Your task to perform on an android device: Go to battery settings Image 0: 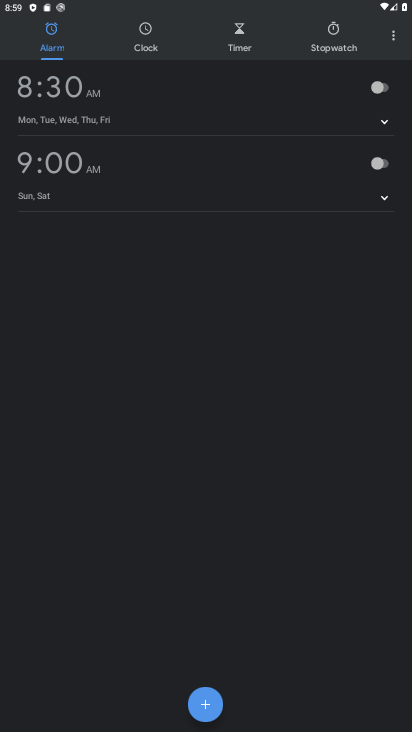
Step 0: press home button
Your task to perform on an android device: Go to battery settings Image 1: 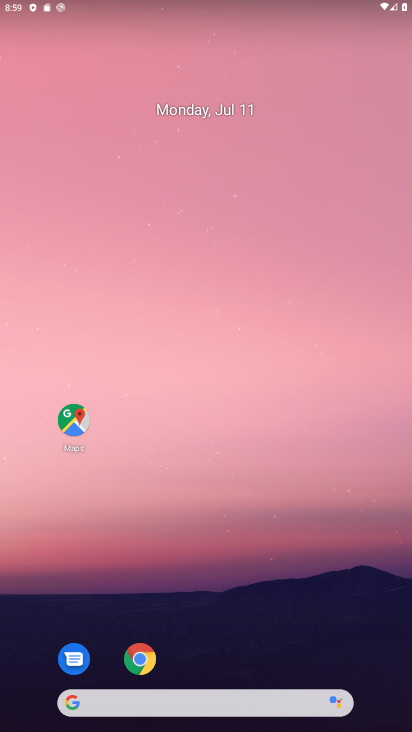
Step 1: drag from (375, 640) to (355, 95)
Your task to perform on an android device: Go to battery settings Image 2: 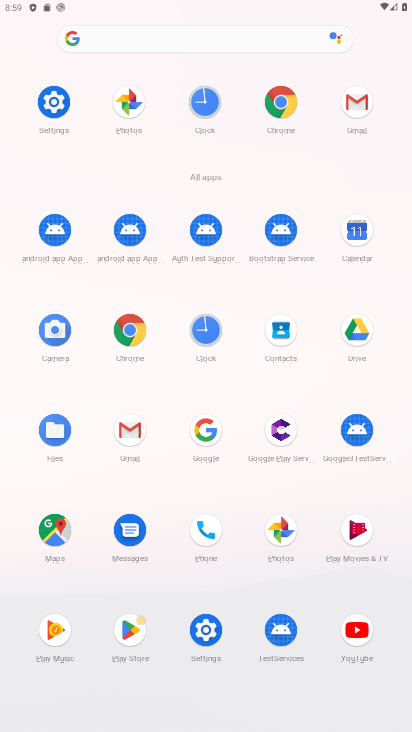
Step 2: click (207, 617)
Your task to perform on an android device: Go to battery settings Image 3: 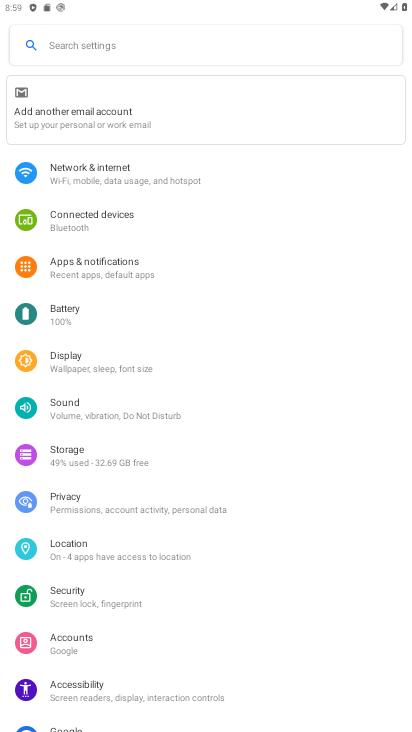
Step 3: click (92, 312)
Your task to perform on an android device: Go to battery settings Image 4: 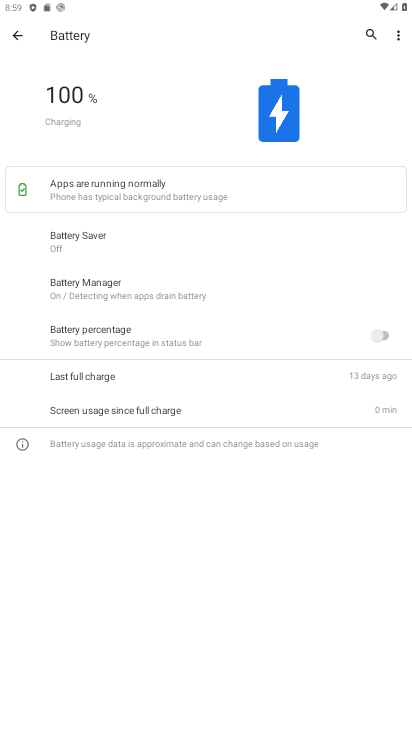
Step 4: task complete